Your task to perform on an android device: empty trash in the gmail app Image 0: 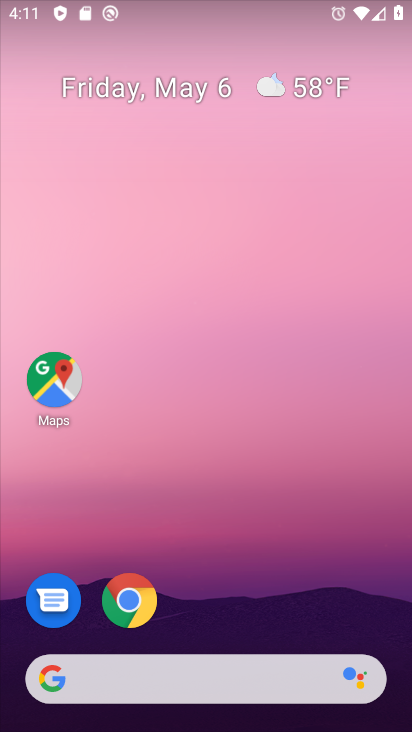
Step 0: drag from (207, 621) to (318, 67)
Your task to perform on an android device: empty trash in the gmail app Image 1: 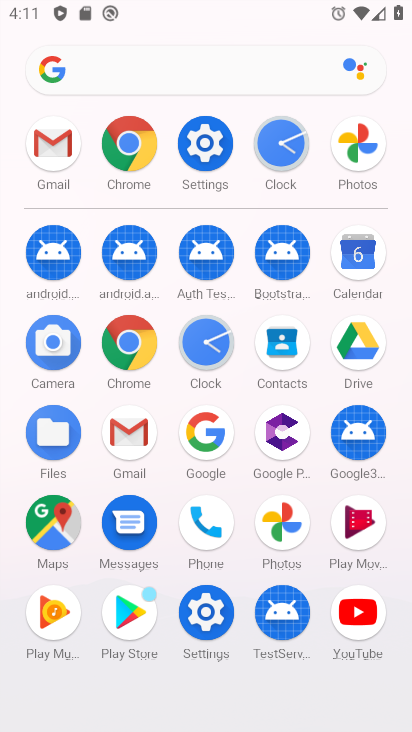
Step 1: click (132, 457)
Your task to perform on an android device: empty trash in the gmail app Image 2: 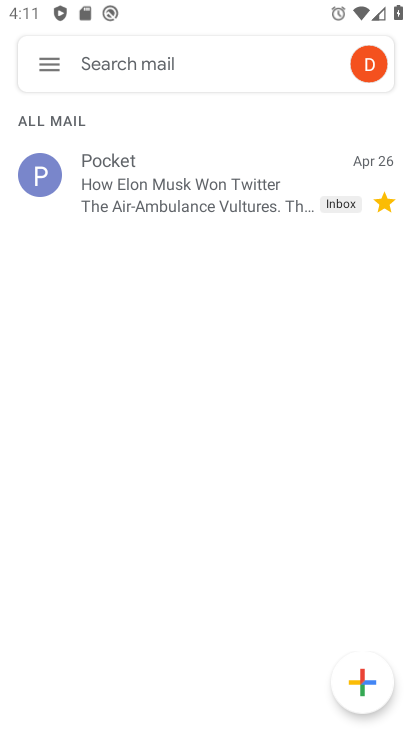
Step 2: click (35, 61)
Your task to perform on an android device: empty trash in the gmail app Image 3: 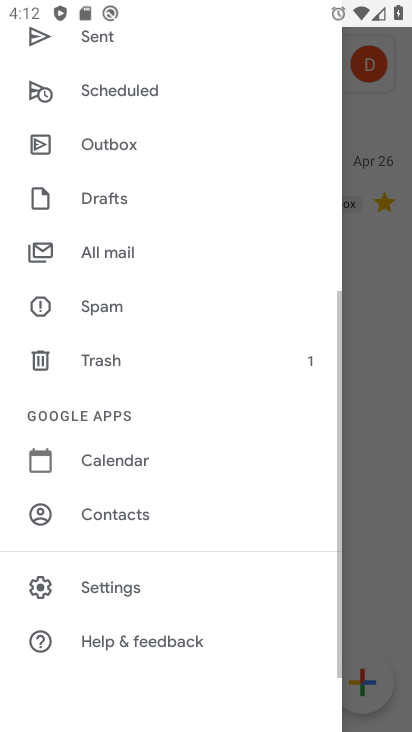
Step 3: click (152, 348)
Your task to perform on an android device: empty trash in the gmail app Image 4: 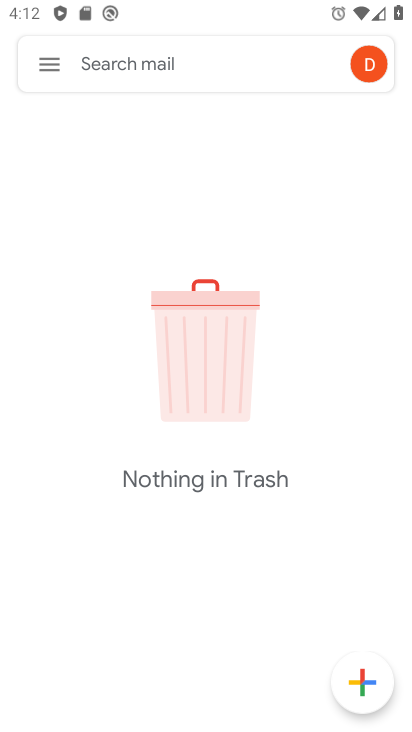
Step 4: click (200, 476)
Your task to perform on an android device: empty trash in the gmail app Image 5: 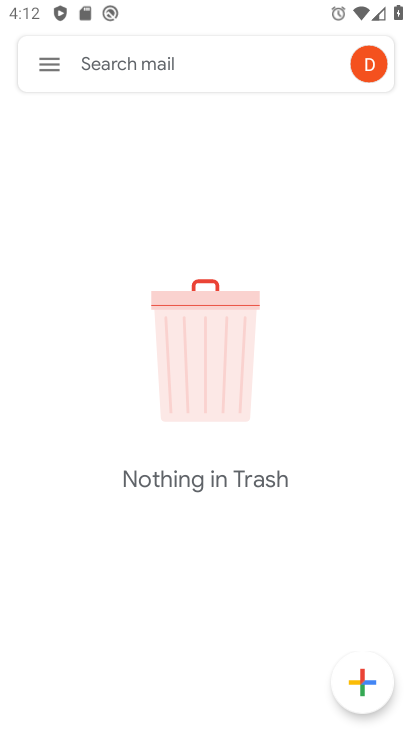
Step 5: task complete